Your task to perform on an android device: Add bose soundlink mini to the cart on walmart.com, then select checkout. Image 0: 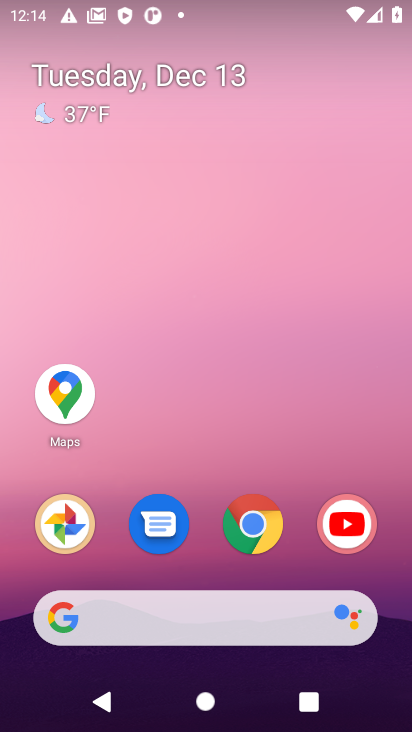
Step 0: click (246, 526)
Your task to perform on an android device: Add bose soundlink mini to the cart on walmart.com, then select checkout. Image 1: 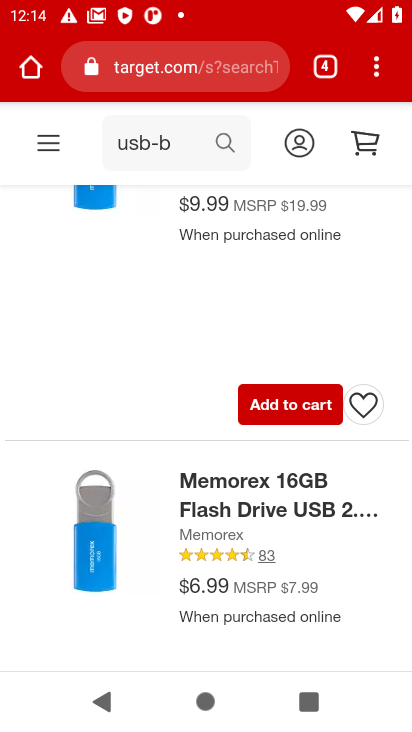
Step 1: click (159, 74)
Your task to perform on an android device: Add bose soundlink mini to the cart on walmart.com, then select checkout. Image 2: 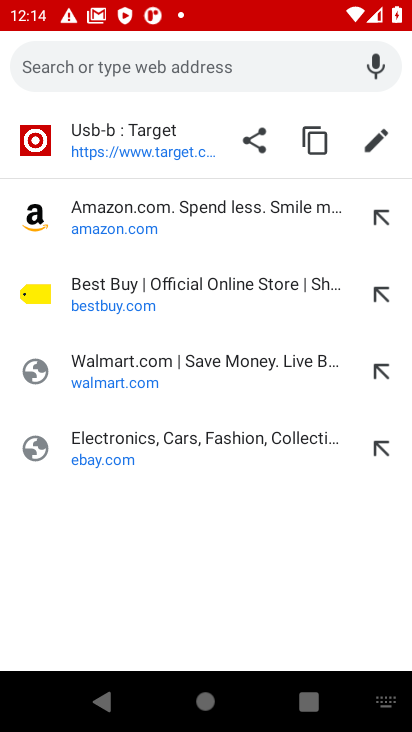
Step 2: click (100, 380)
Your task to perform on an android device: Add bose soundlink mini to the cart on walmart.com, then select checkout. Image 3: 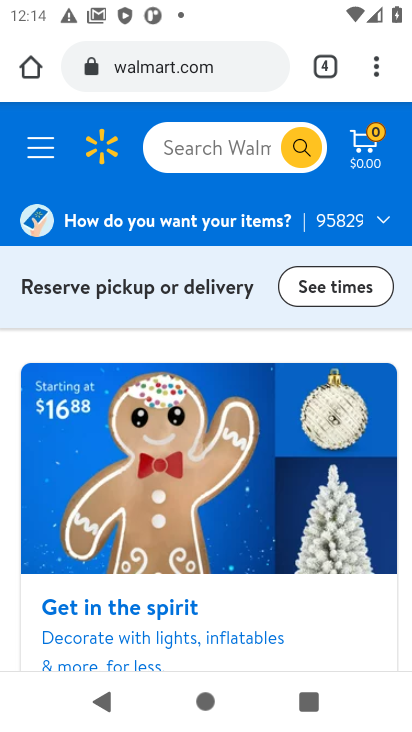
Step 3: click (213, 155)
Your task to perform on an android device: Add bose soundlink mini to the cart on walmart.com, then select checkout. Image 4: 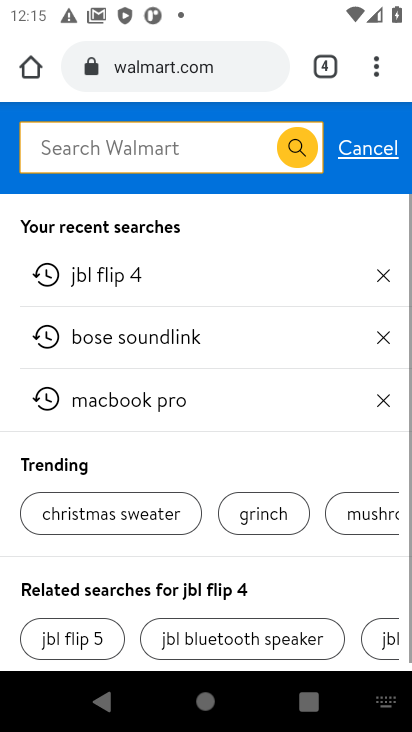
Step 4: type "bose soundlink mini"
Your task to perform on an android device: Add bose soundlink mini to the cart on walmart.com, then select checkout. Image 5: 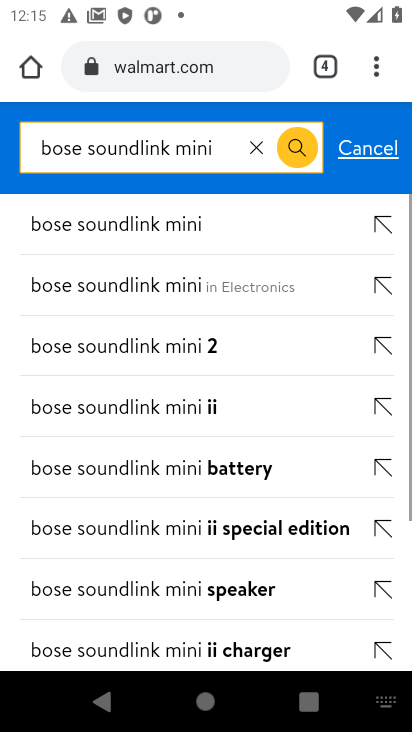
Step 5: click (120, 226)
Your task to perform on an android device: Add bose soundlink mini to the cart on walmart.com, then select checkout. Image 6: 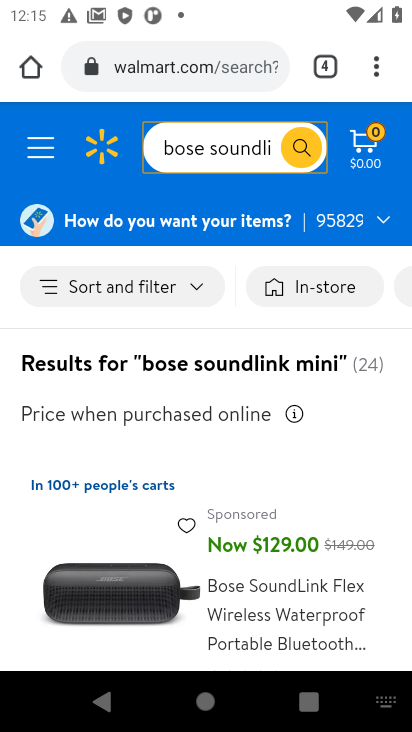
Step 6: task complete